Your task to perform on an android device: Is it going to rain tomorrow? Image 0: 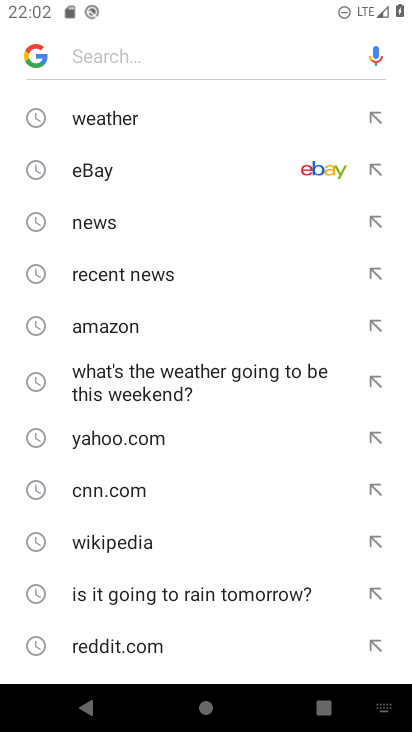
Step 0: press home button
Your task to perform on an android device: Is it going to rain tomorrow? Image 1: 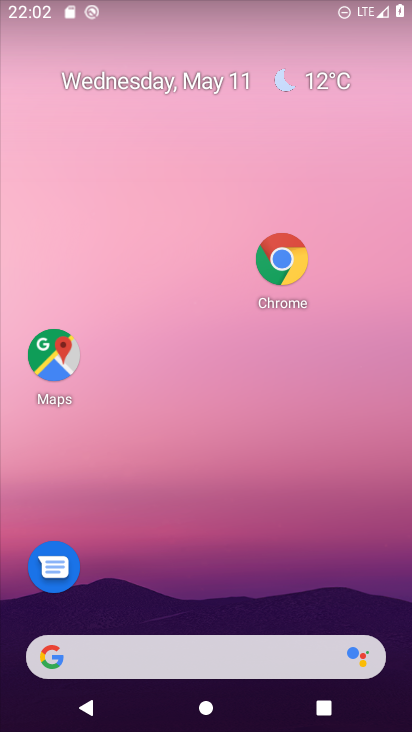
Step 1: click (320, 81)
Your task to perform on an android device: Is it going to rain tomorrow? Image 2: 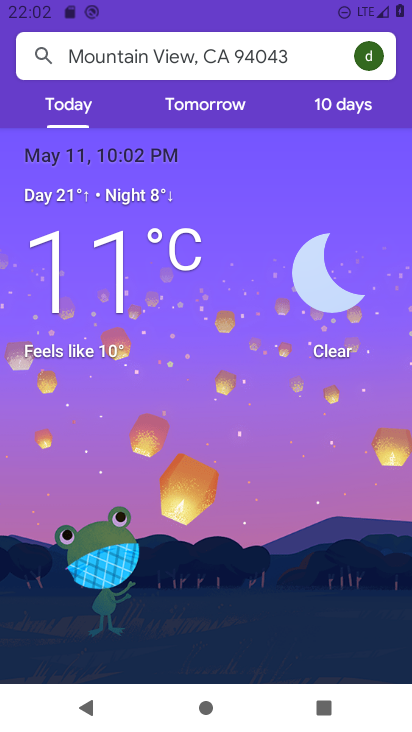
Step 2: click (218, 105)
Your task to perform on an android device: Is it going to rain tomorrow? Image 3: 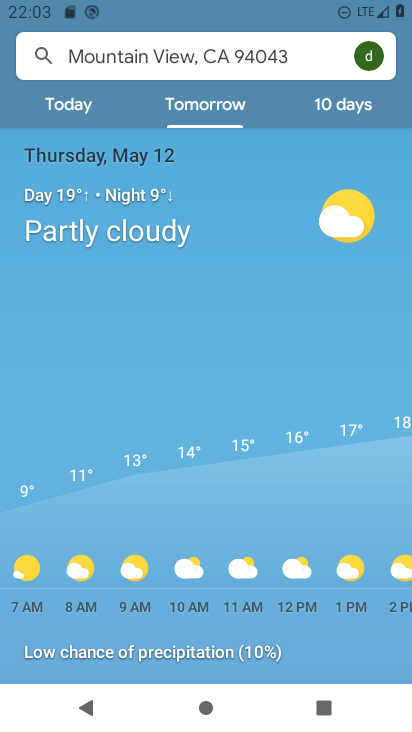
Step 3: task complete